Your task to perform on an android device: empty trash in google photos Image 0: 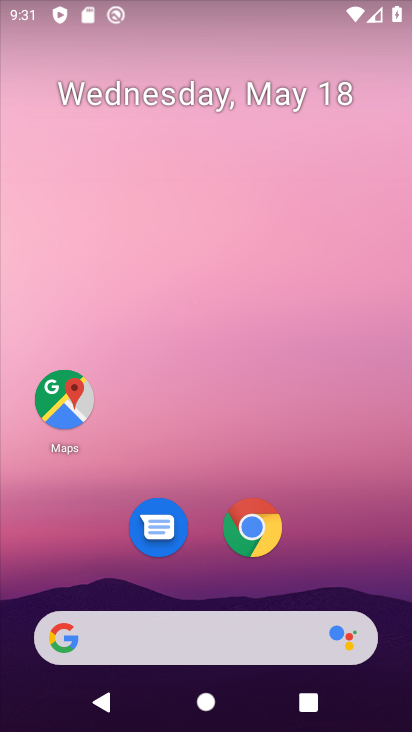
Step 0: drag from (337, 556) to (299, 233)
Your task to perform on an android device: empty trash in google photos Image 1: 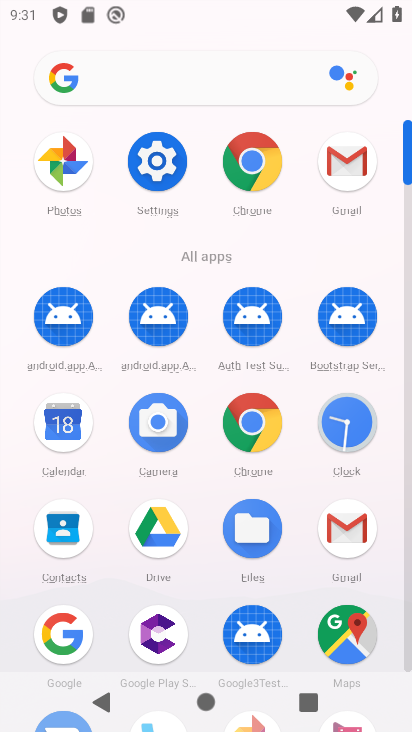
Step 1: drag from (218, 578) to (220, 343)
Your task to perform on an android device: empty trash in google photos Image 2: 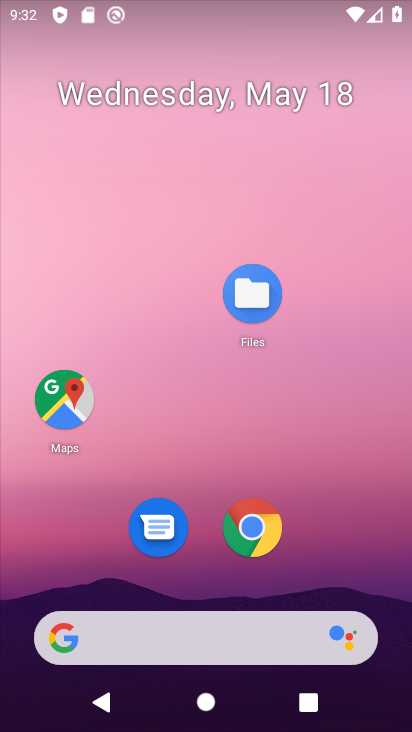
Step 2: drag from (208, 558) to (176, 63)
Your task to perform on an android device: empty trash in google photos Image 3: 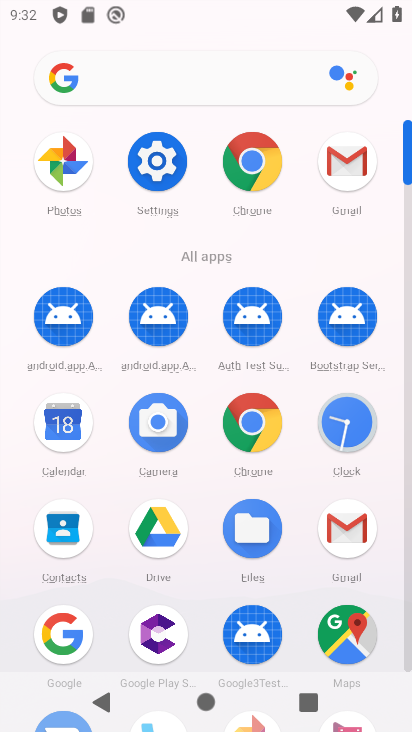
Step 3: click (65, 150)
Your task to perform on an android device: empty trash in google photos Image 4: 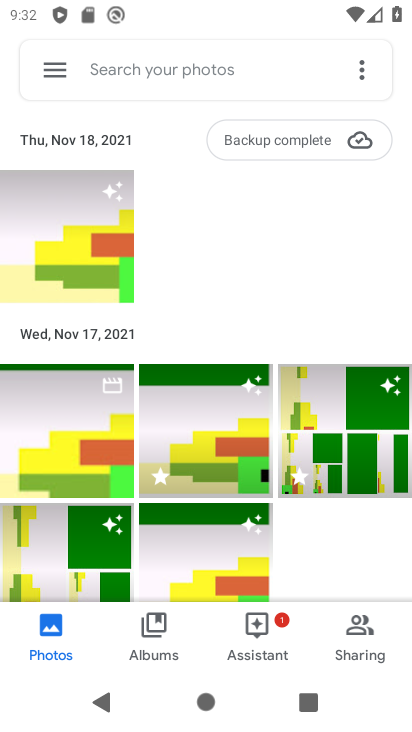
Step 4: click (63, 66)
Your task to perform on an android device: empty trash in google photos Image 5: 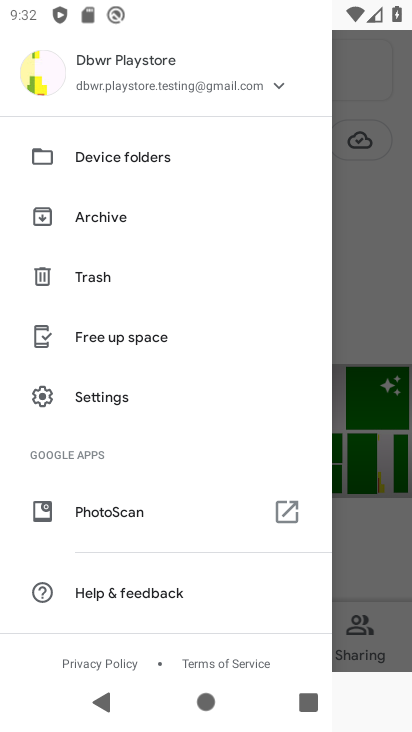
Step 5: click (102, 278)
Your task to perform on an android device: empty trash in google photos Image 6: 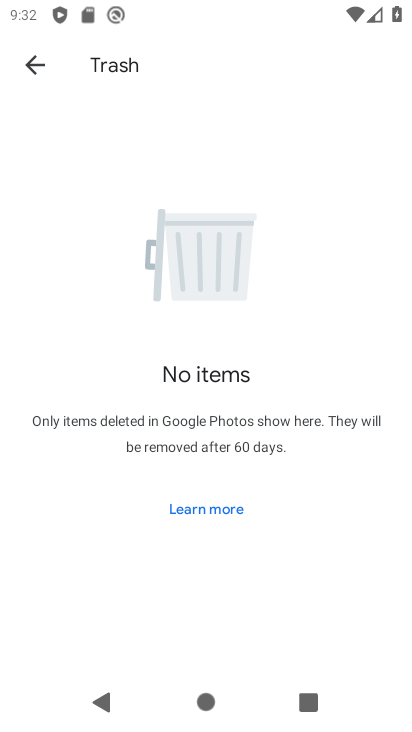
Step 6: task complete